Your task to perform on an android device: turn notification dots on Image 0: 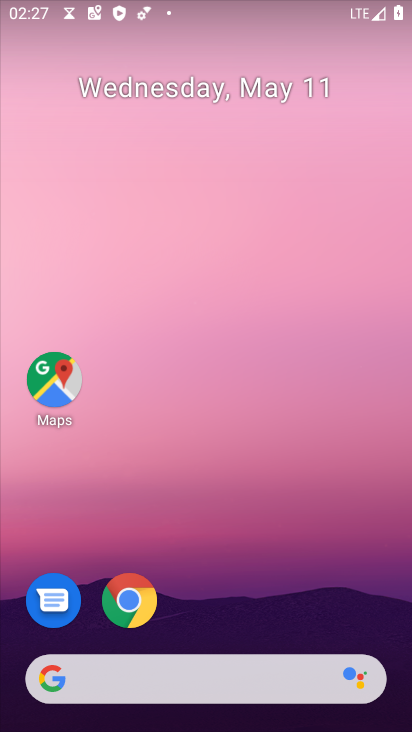
Step 0: drag from (260, 572) to (282, 217)
Your task to perform on an android device: turn notification dots on Image 1: 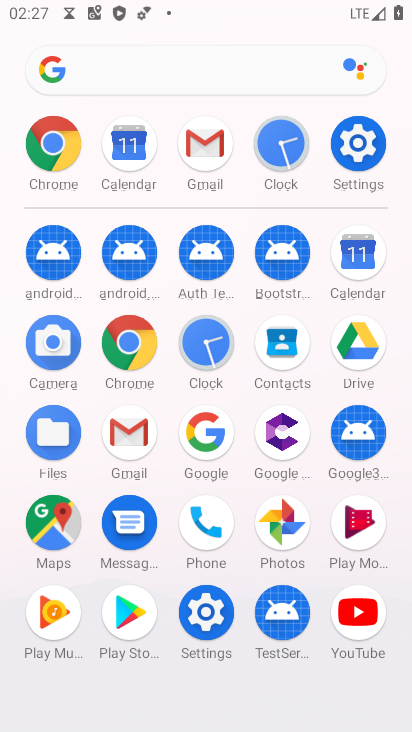
Step 1: click (347, 133)
Your task to perform on an android device: turn notification dots on Image 2: 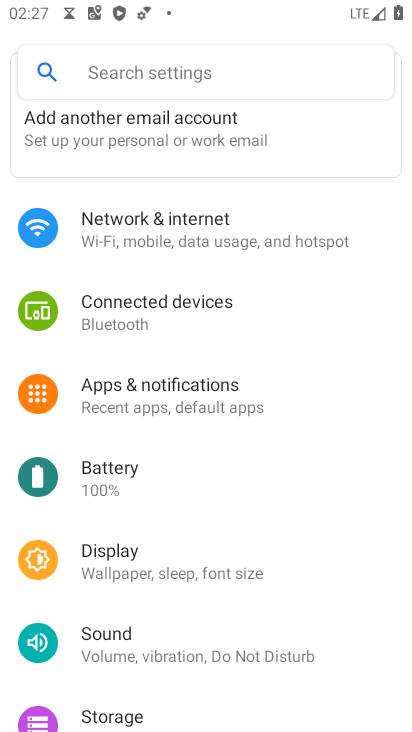
Step 2: click (184, 65)
Your task to perform on an android device: turn notification dots on Image 3: 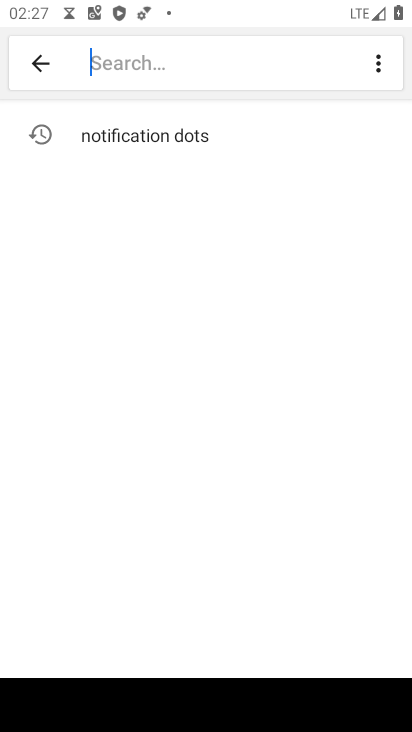
Step 3: click (216, 135)
Your task to perform on an android device: turn notification dots on Image 4: 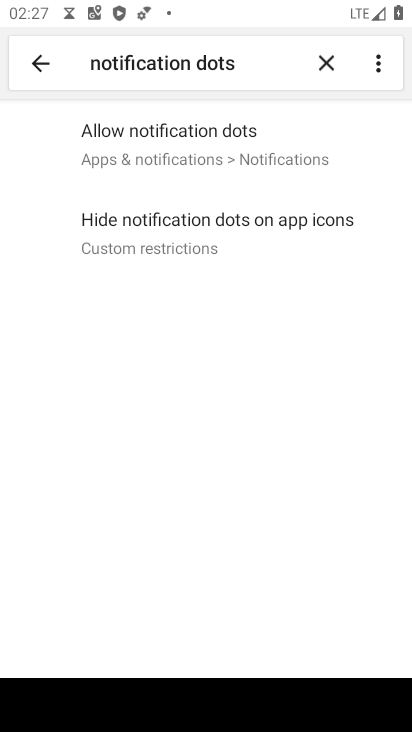
Step 4: click (293, 154)
Your task to perform on an android device: turn notification dots on Image 5: 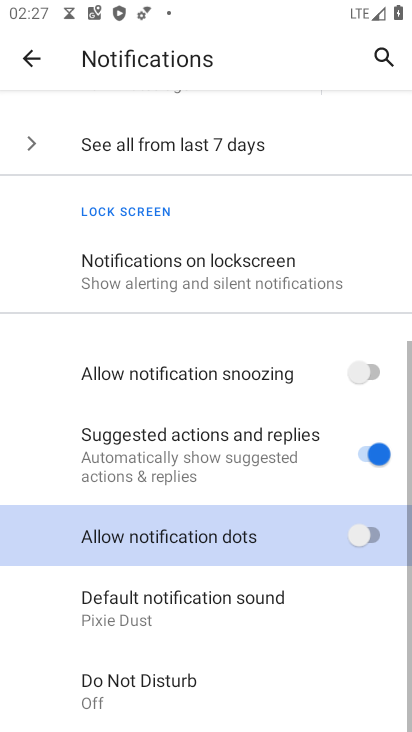
Step 5: click (378, 531)
Your task to perform on an android device: turn notification dots on Image 6: 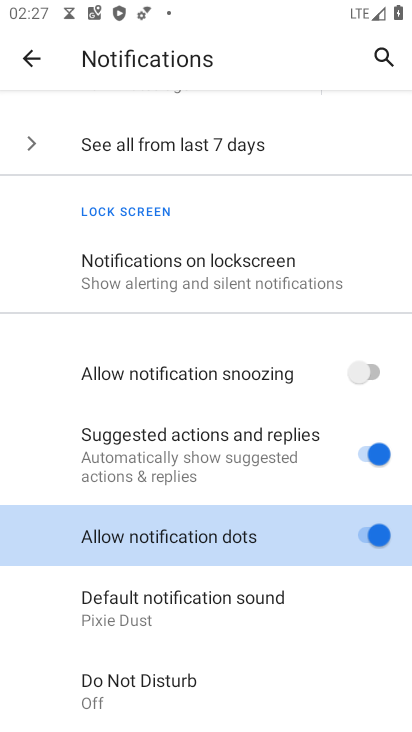
Step 6: task complete